Your task to perform on an android device: turn pop-ups off in chrome Image 0: 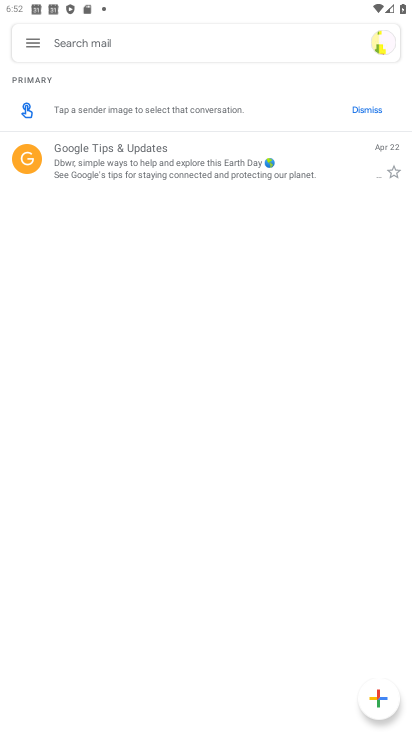
Step 0: press home button
Your task to perform on an android device: turn pop-ups off in chrome Image 1: 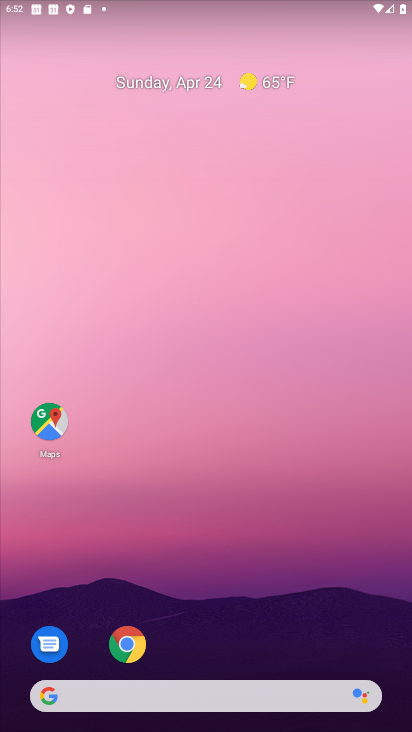
Step 1: click (130, 640)
Your task to perform on an android device: turn pop-ups off in chrome Image 2: 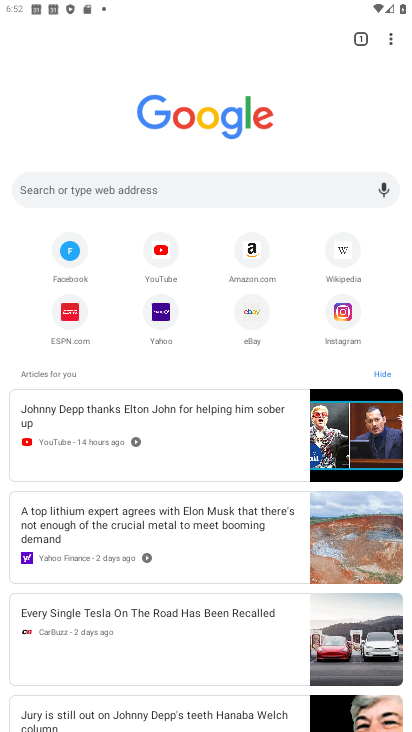
Step 2: click (393, 38)
Your task to perform on an android device: turn pop-ups off in chrome Image 3: 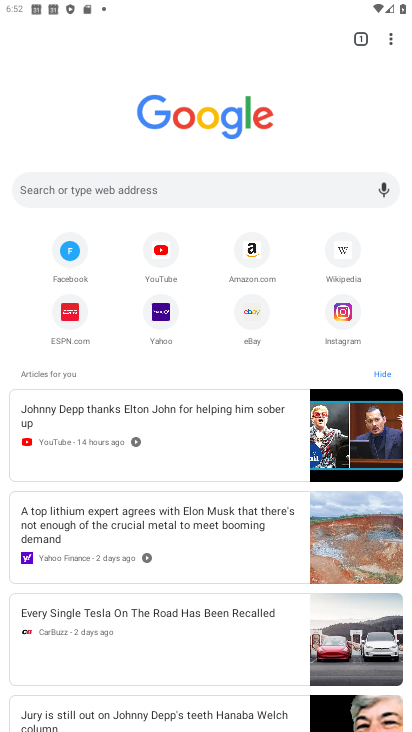
Step 3: click (388, 33)
Your task to perform on an android device: turn pop-ups off in chrome Image 4: 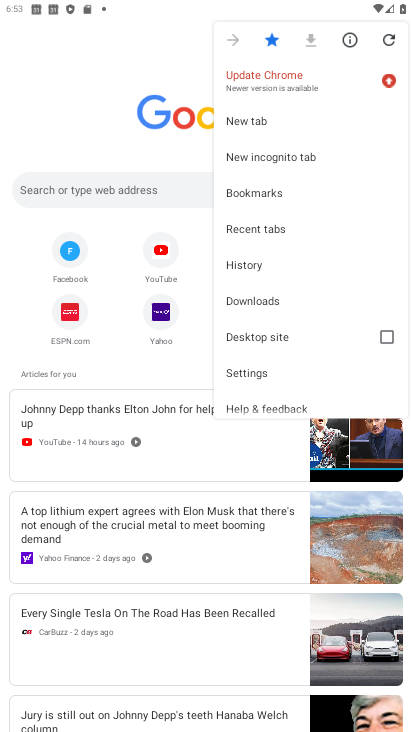
Step 4: click (271, 368)
Your task to perform on an android device: turn pop-ups off in chrome Image 5: 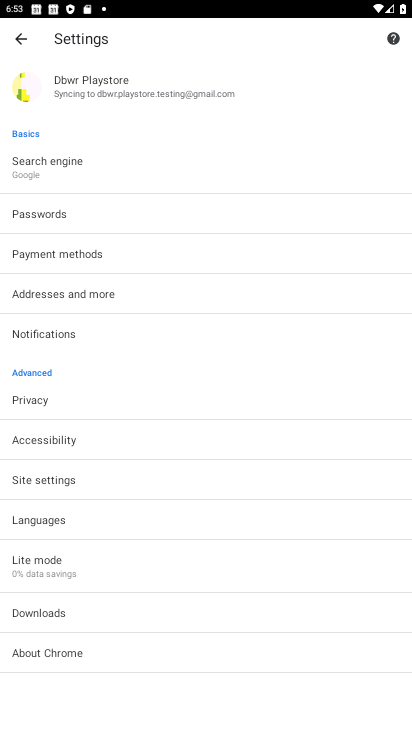
Step 5: click (80, 480)
Your task to perform on an android device: turn pop-ups off in chrome Image 6: 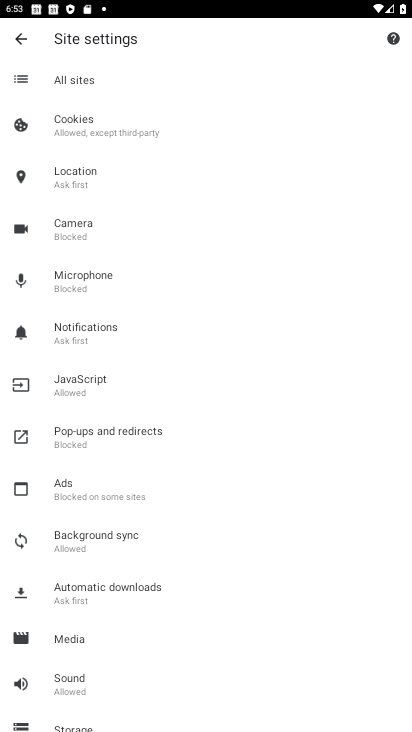
Step 6: click (144, 436)
Your task to perform on an android device: turn pop-ups off in chrome Image 7: 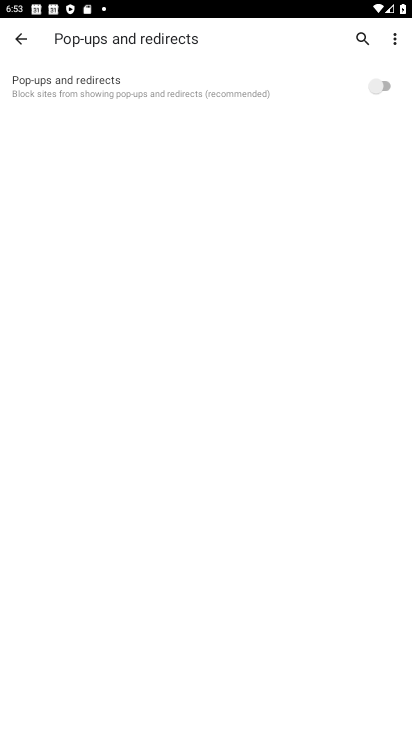
Step 7: task complete